Your task to perform on an android device: Open Maps and search for coffee Image 0: 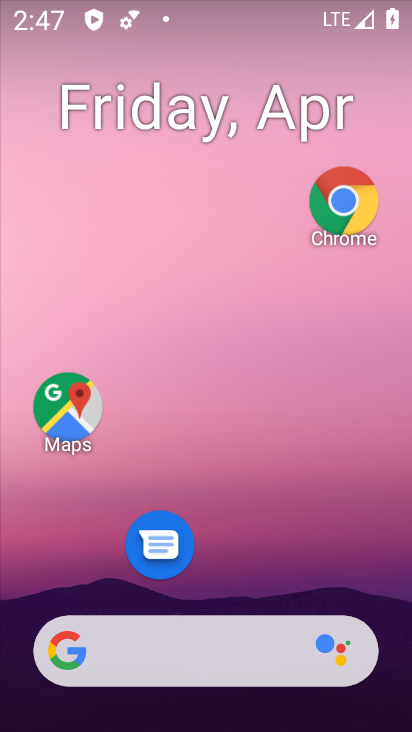
Step 0: click (78, 413)
Your task to perform on an android device: Open Maps and search for coffee Image 1: 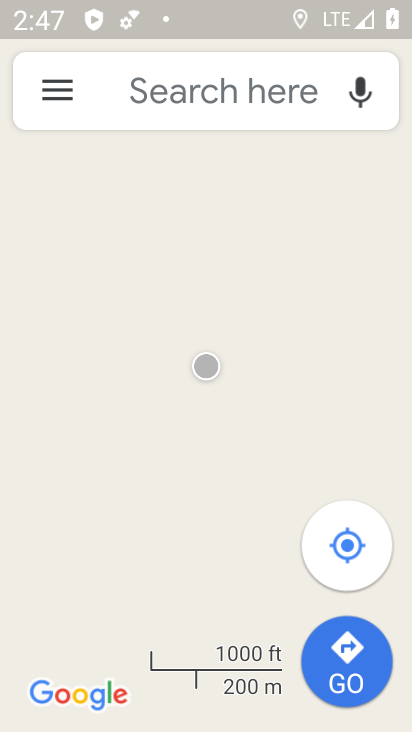
Step 1: click (199, 95)
Your task to perform on an android device: Open Maps and search for coffee Image 2: 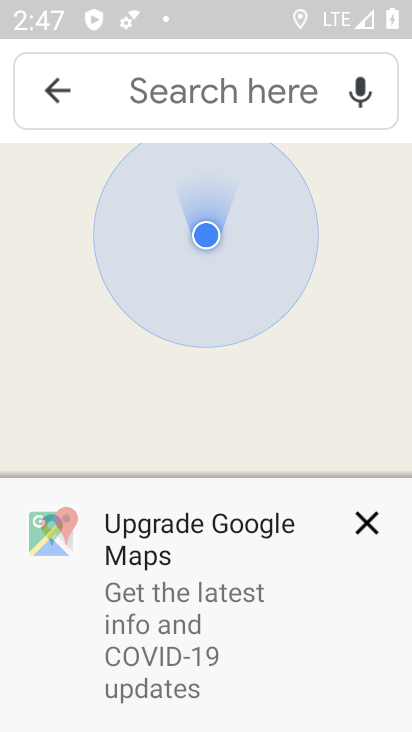
Step 2: click (199, 96)
Your task to perform on an android device: Open Maps and search for coffee Image 3: 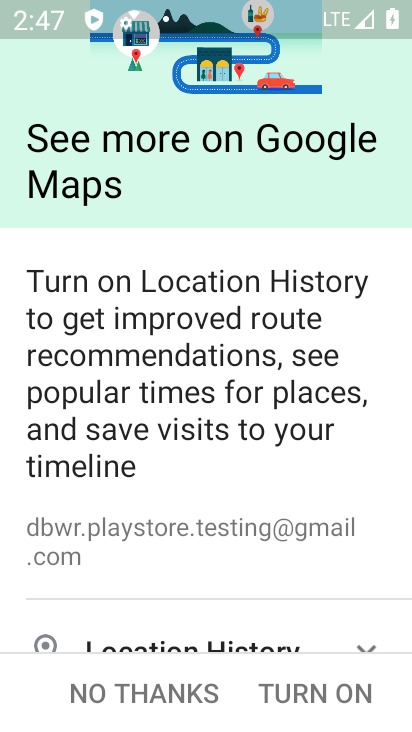
Step 3: type "coffee "
Your task to perform on an android device: Open Maps and search for coffee Image 4: 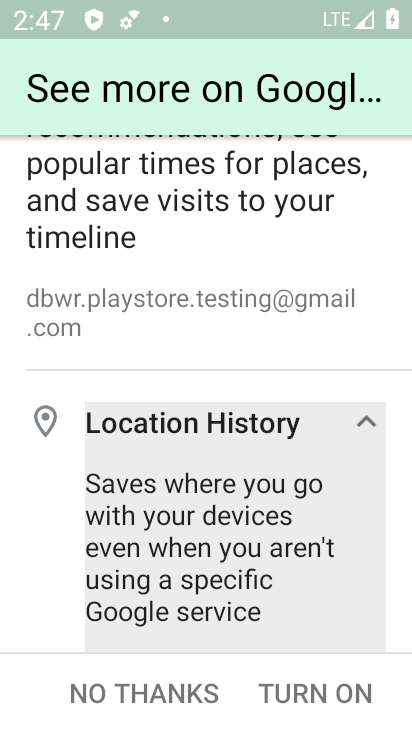
Step 4: click (180, 698)
Your task to perform on an android device: Open Maps and search for coffee Image 5: 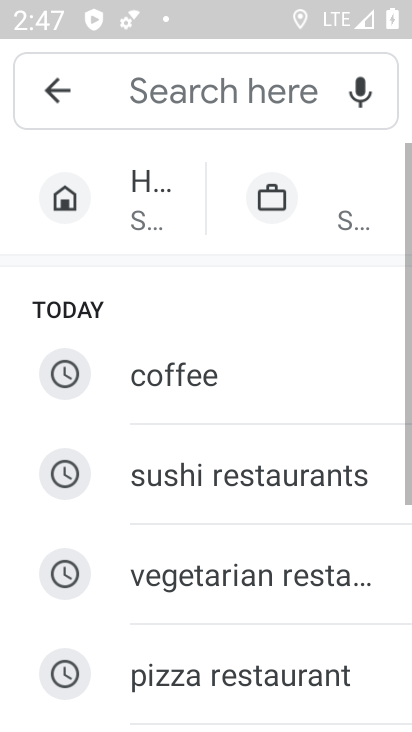
Step 5: click (181, 87)
Your task to perform on an android device: Open Maps and search for coffee Image 6: 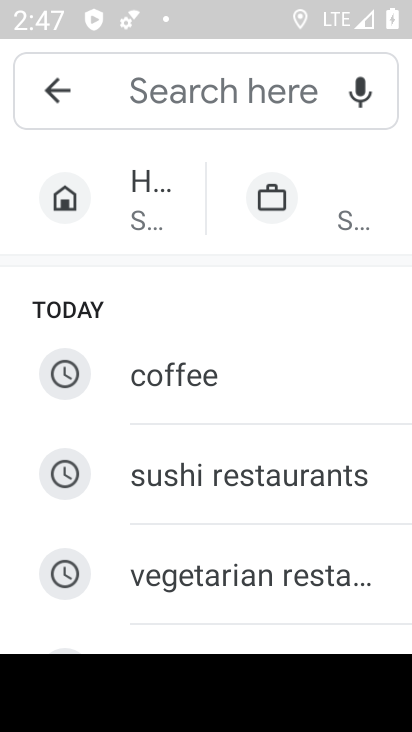
Step 6: type "coffee"
Your task to perform on an android device: Open Maps and search for coffee Image 7: 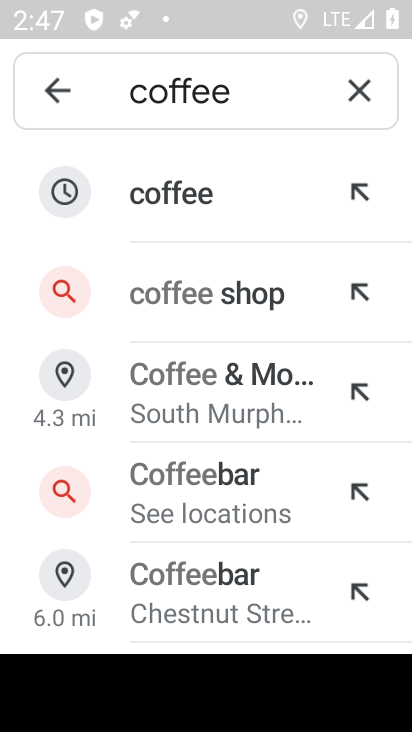
Step 7: click (190, 185)
Your task to perform on an android device: Open Maps and search for coffee Image 8: 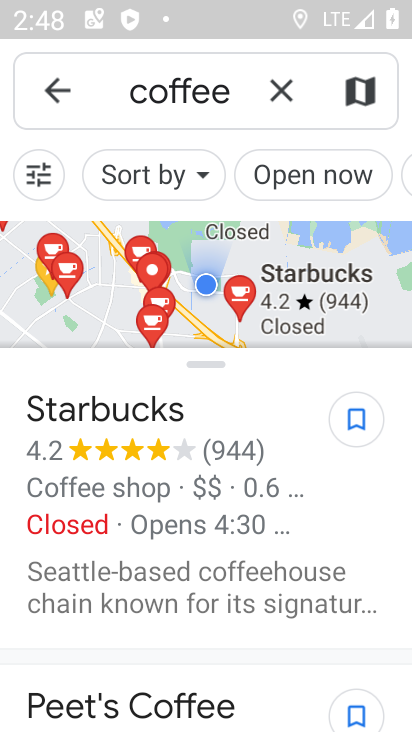
Step 8: task complete